Your task to perform on an android device: Show me recent news Image 0: 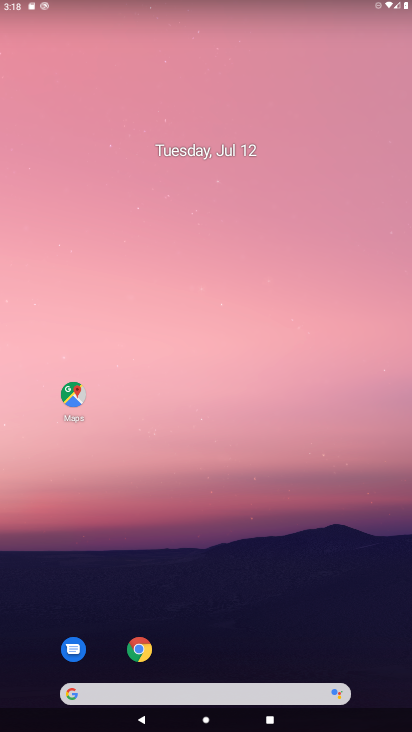
Step 0: drag from (237, 650) to (165, 93)
Your task to perform on an android device: Show me recent news Image 1: 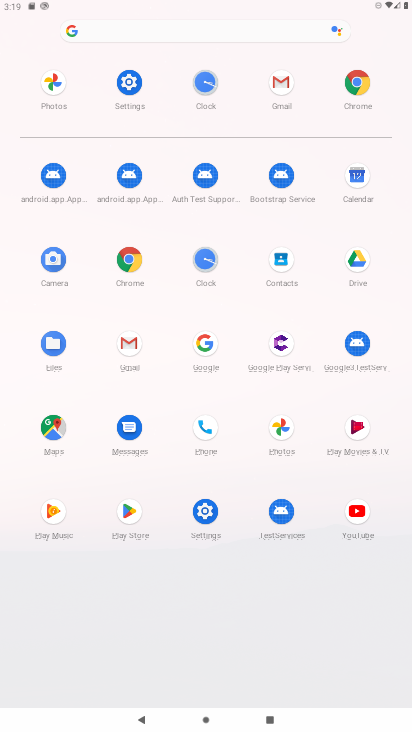
Step 1: click (169, 26)
Your task to perform on an android device: Show me recent news Image 2: 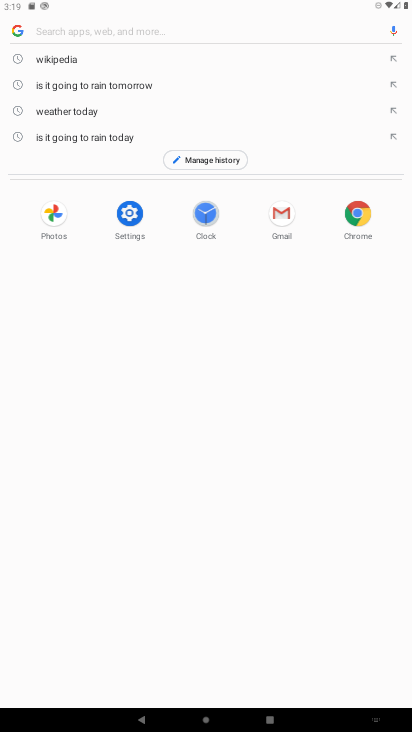
Step 2: type "news"
Your task to perform on an android device: Show me recent news Image 3: 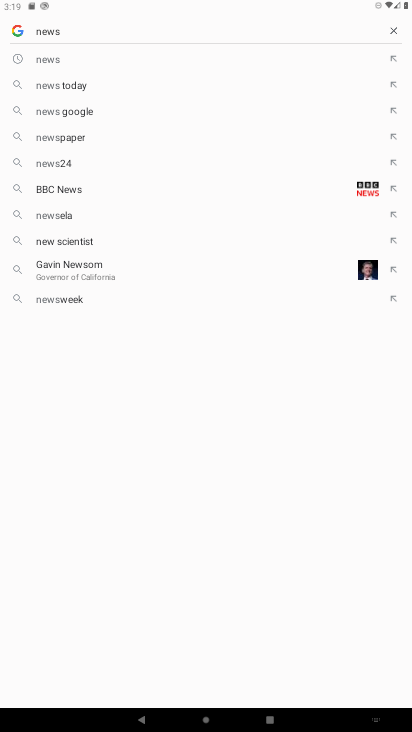
Step 3: click (136, 62)
Your task to perform on an android device: Show me recent news Image 4: 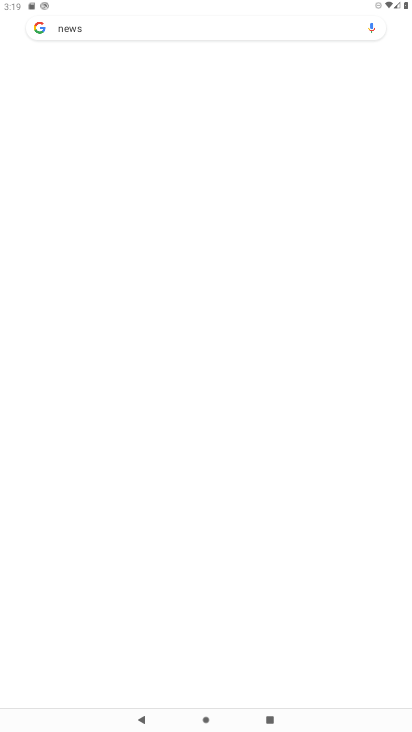
Step 4: task complete